Your task to perform on an android device: change the clock display to show seconds Image 0: 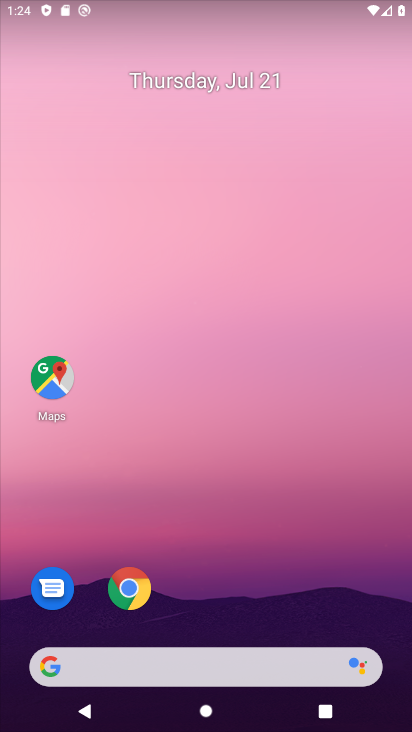
Step 0: drag from (244, 632) to (236, 158)
Your task to perform on an android device: change the clock display to show seconds Image 1: 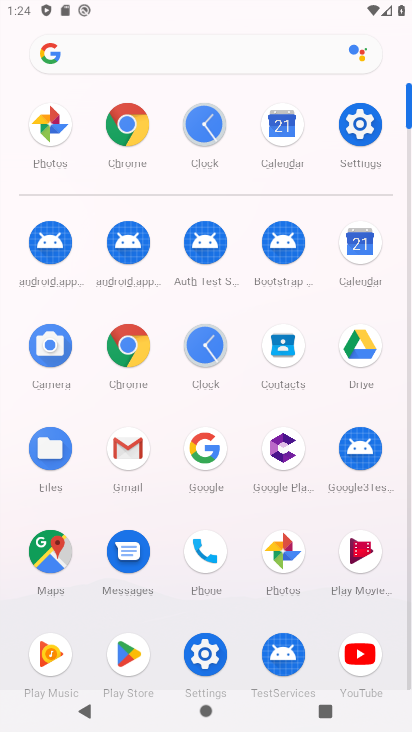
Step 1: click (191, 344)
Your task to perform on an android device: change the clock display to show seconds Image 2: 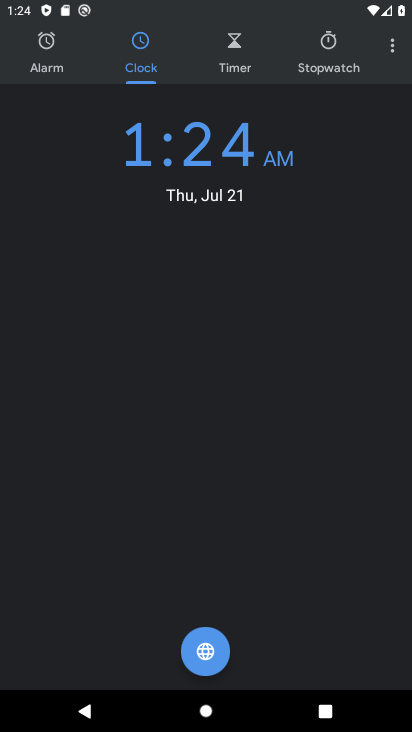
Step 2: click (388, 45)
Your task to perform on an android device: change the clock display to show seconds Image 3: 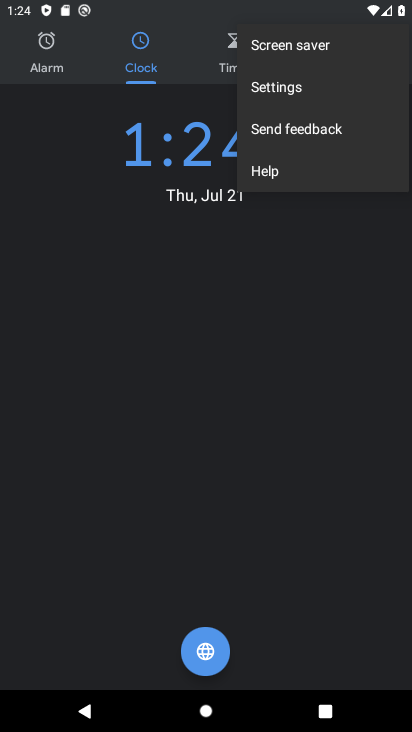
Step 3: click (287, 99)
Your task to perform on an android device: change the clock display to show seconds Image 4: 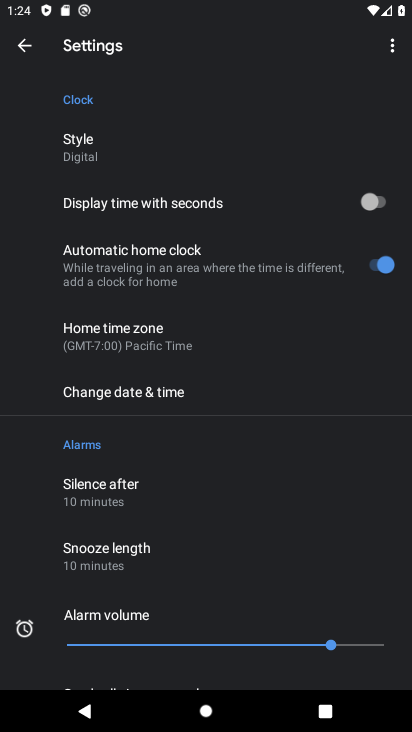
Step 4: click (371, 210)
Your task to perform on an android device: change the clock display to show seconds Image 5: 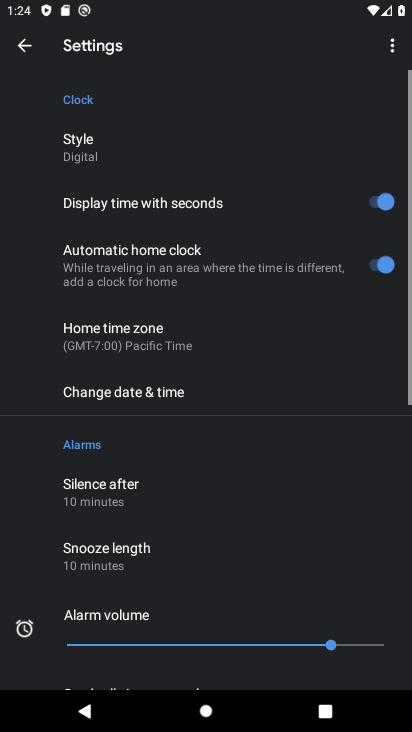
Step 5: task complete